Your task to perform on an android device: check battery use Image 0: 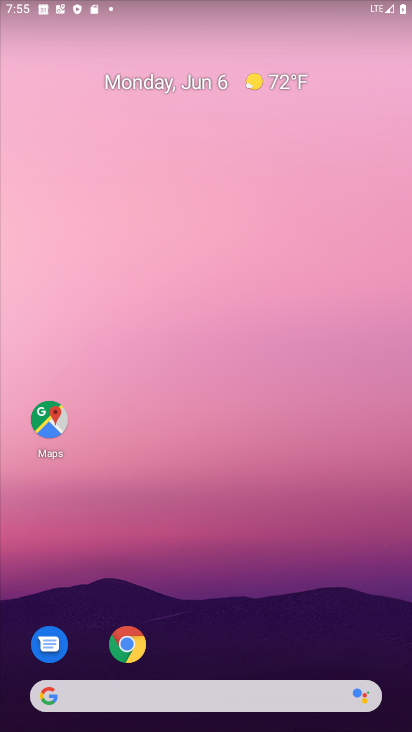
Step 0: drag from (226, 720) to (298, 182)
Your task to perform on an android device: check battery use Image 1: 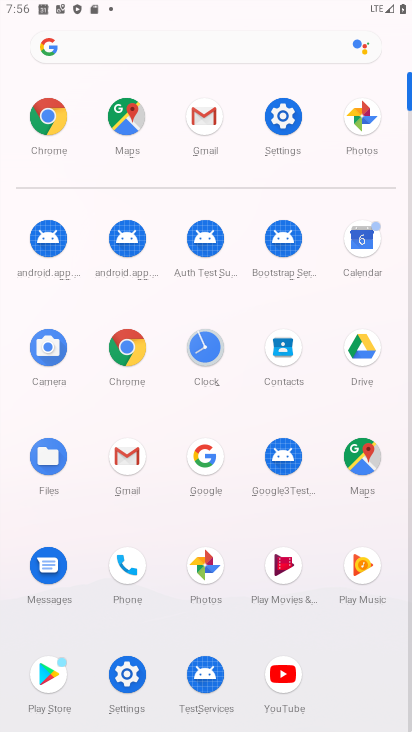
Step 1: click (279, 127)
Your task to perform on an android device: check battery use Image 2: 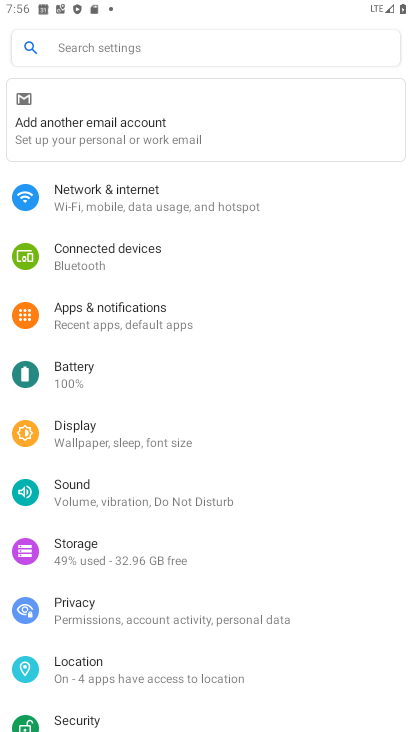
Step 2: click (97, 386)
Your task to perform on an android device: check battery use Image 3: 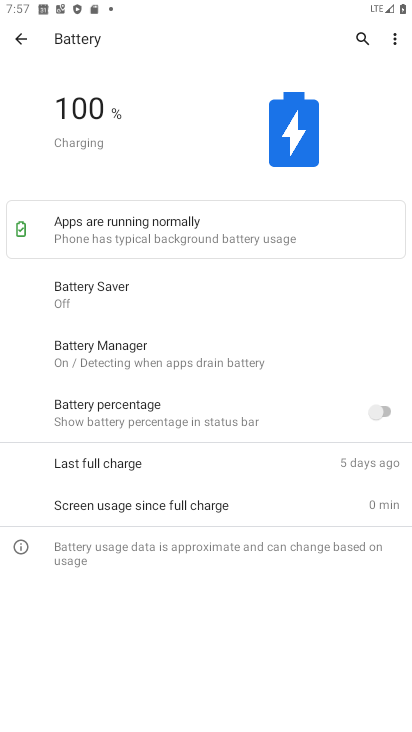
Step 3: task complete